Your task to perform on an android device: set the stopwatch Image 0: 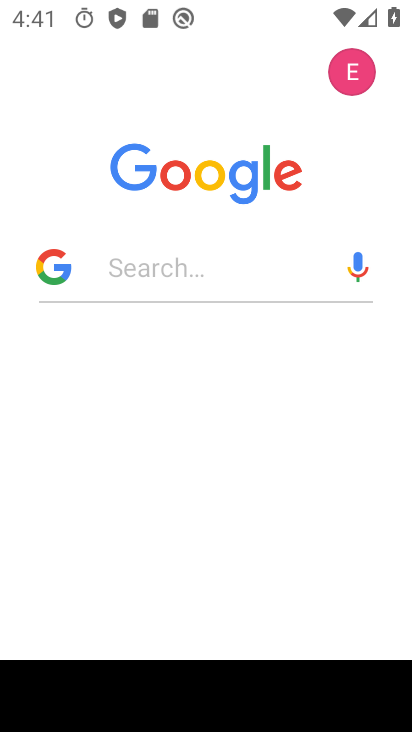
Step 0: press home button
Your task to perform on an android device: set the stopwatch Image 1: 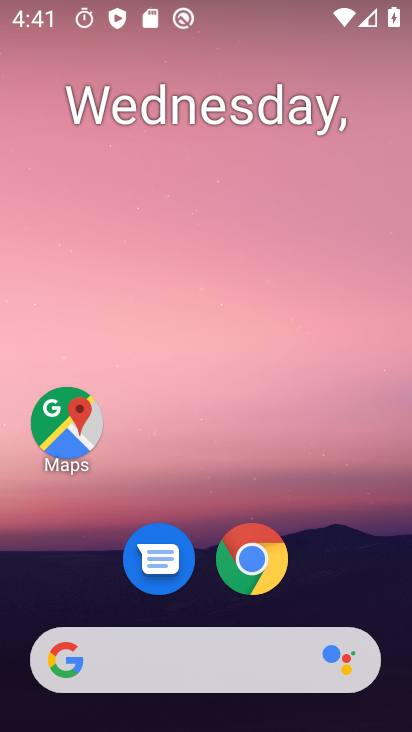
Step 1: drag from (361, 587) to (364, 73)
Your task to perform on an android device: set the stopwatch Image 2: 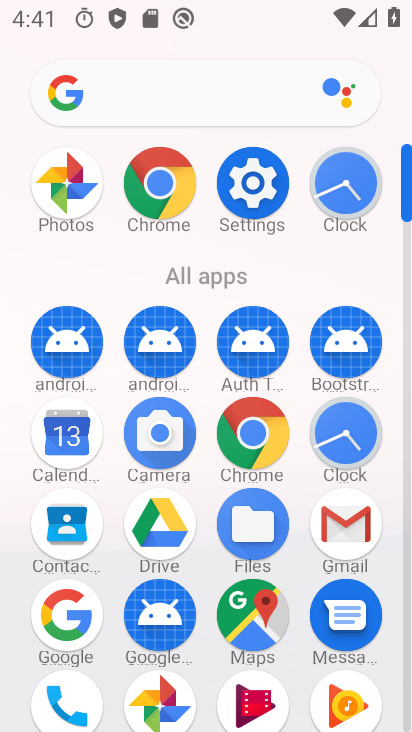
Step 2: click (355, 199)
Your task to perform on an android device: set the stopwatch Image 3: 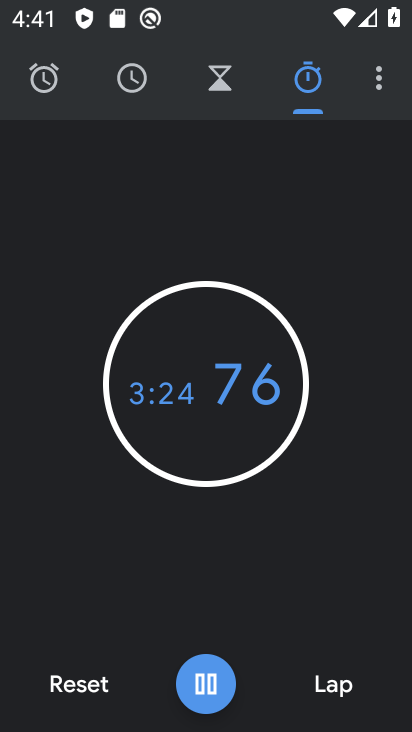
Step 3: task complete